Your task to perform on an android device: turn on improve location accuracy Image 0: 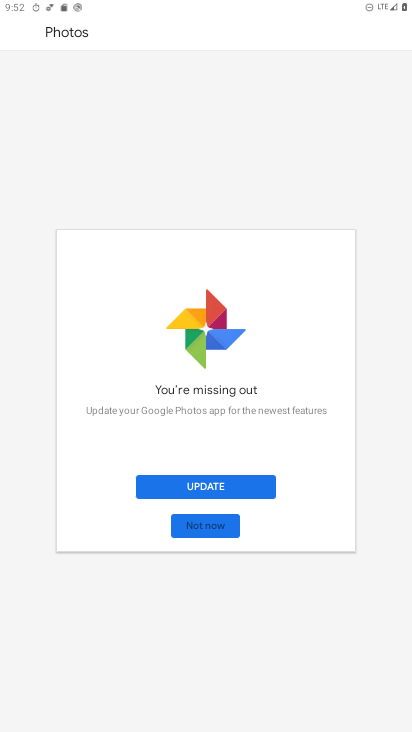
Step 0: press home button
Your task to perform on an android device: turn on improve location accuracy Image 1: 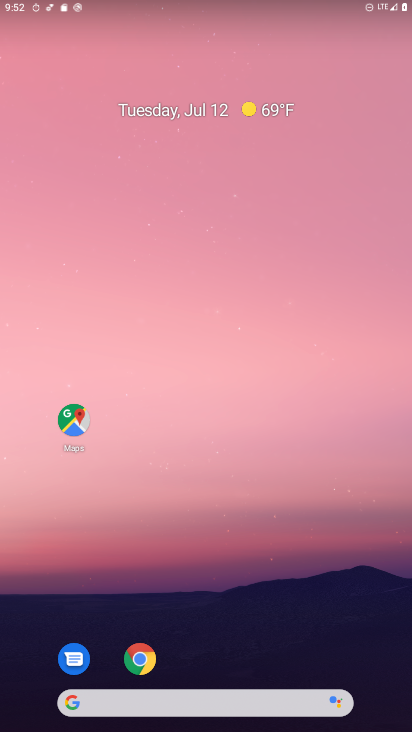
Step 1: drag from (246, 719) to (230, 183)
Your task to perform on an android device: turn on improve location accuracy Image 2: 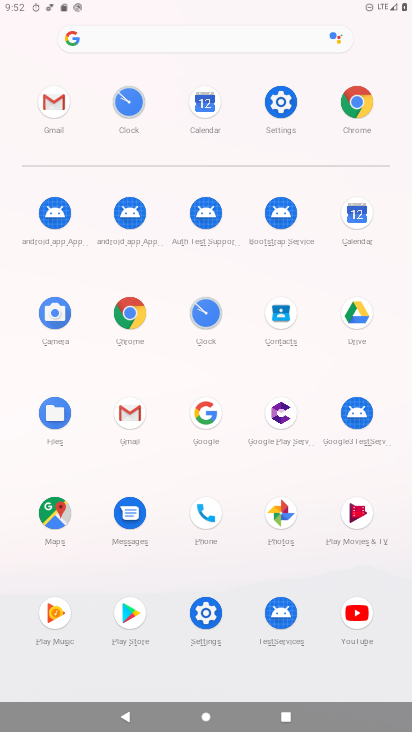
Step 2: click (283, 104)
Your task to perform on an android device: turn on improve location accuracy Image 3: 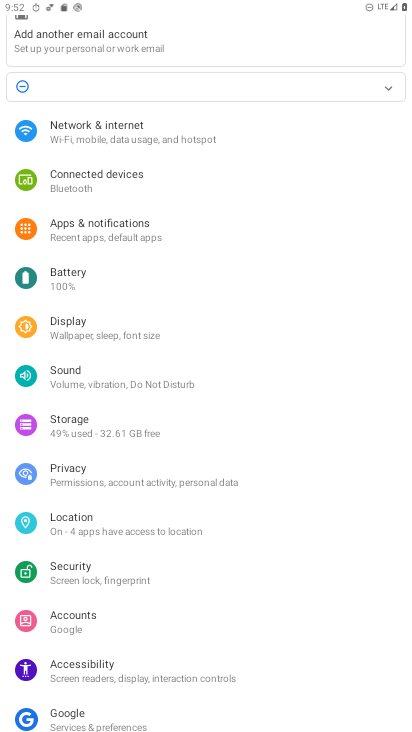
Step 3: click (72, 518)
Your task to perform on an android device: turn on improve location accuracy Image 4: 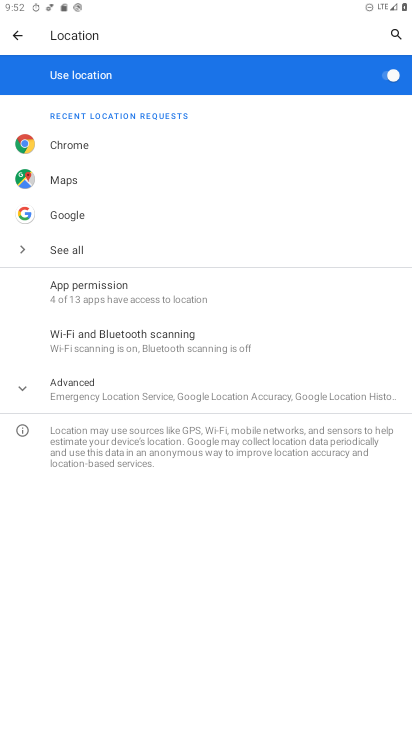
Step 4: click (87, 388)
Your task to perform on an android device: turn on improve location accuracy Image 5: 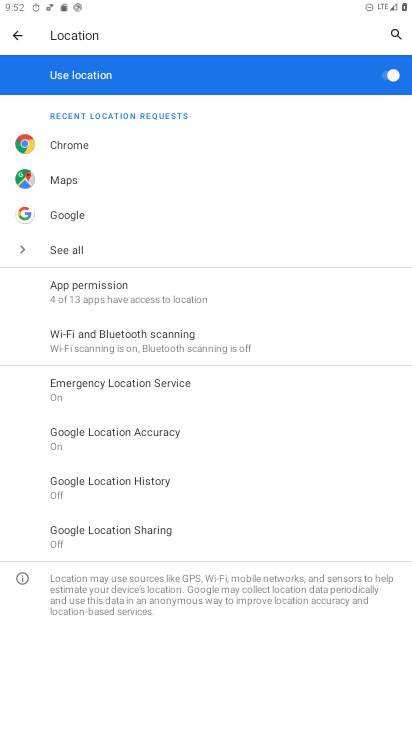
Step 5: click (118, 429)
Your task to perform on an android device: turn on improve location accuracy Image 6: 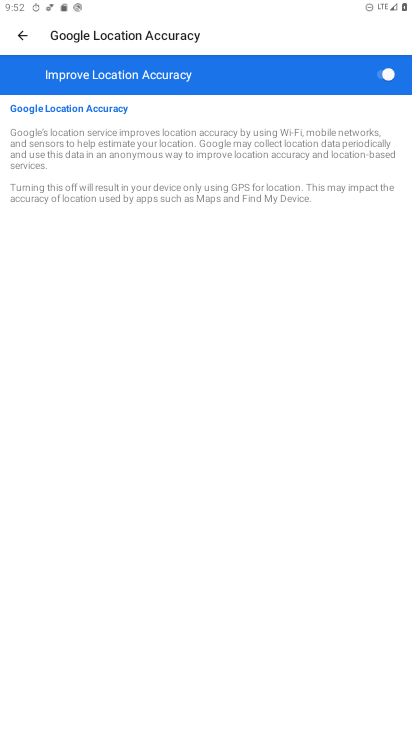
Step 6: task complete